Your task to perform on an android device: Check the weather Image 0: 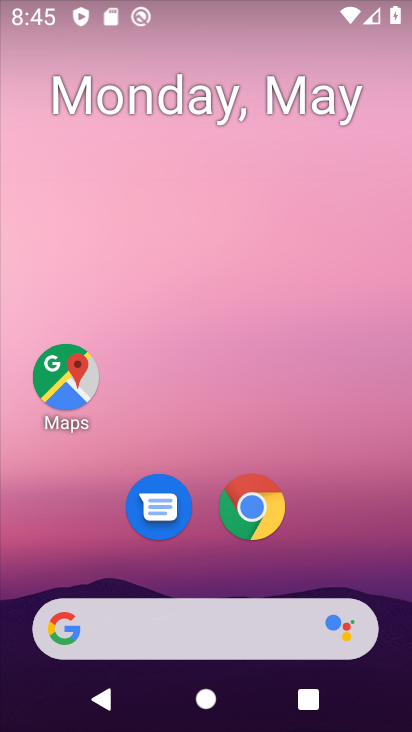
Step 0: drag from (221, 570) to (260, 12)
Your task to perform on an android device: Check the weather Image 1: 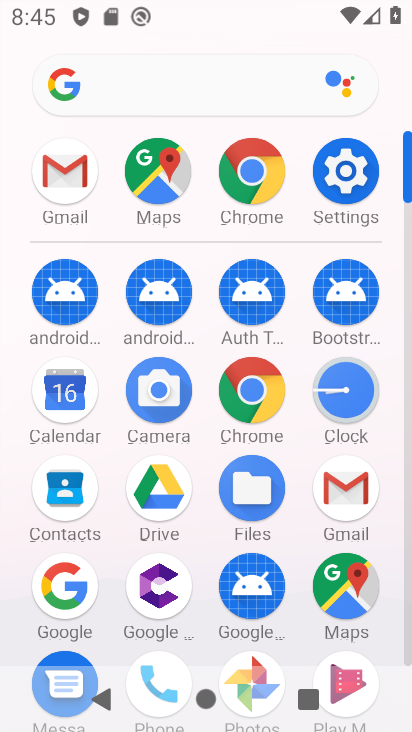
Step 1: click (183, 78)
Your task to perform on an android device: Check the weather Image 2: 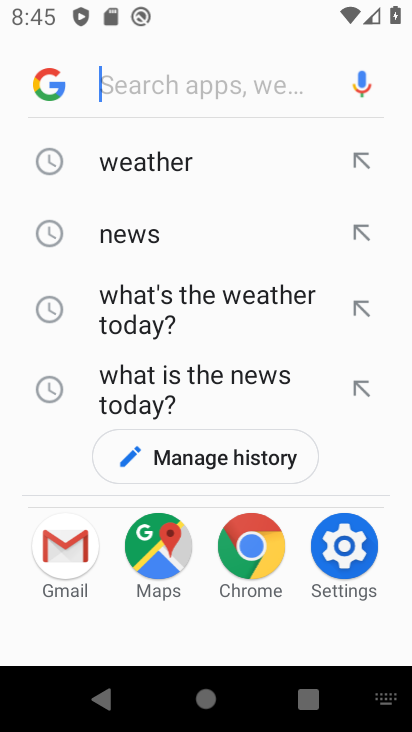
Step 2: click (183, 158)
Your task to perform on an android device: Check the weather Image 3: 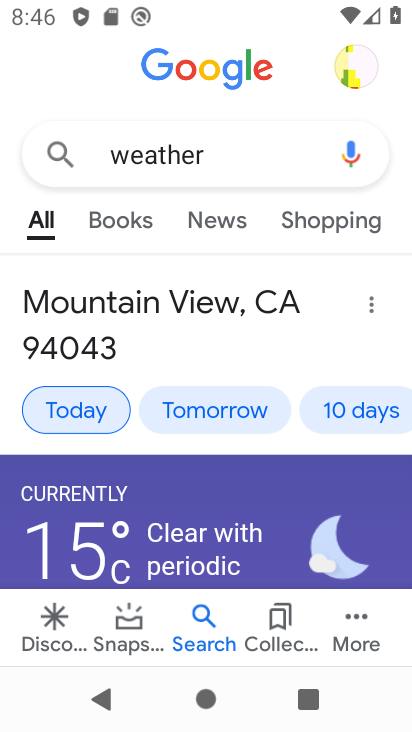
Step 3: task complete